Your task to perform on an android device: Clear the cart on walmart. Add "usb-c to usb-a" to the cart on walmart Image 0: 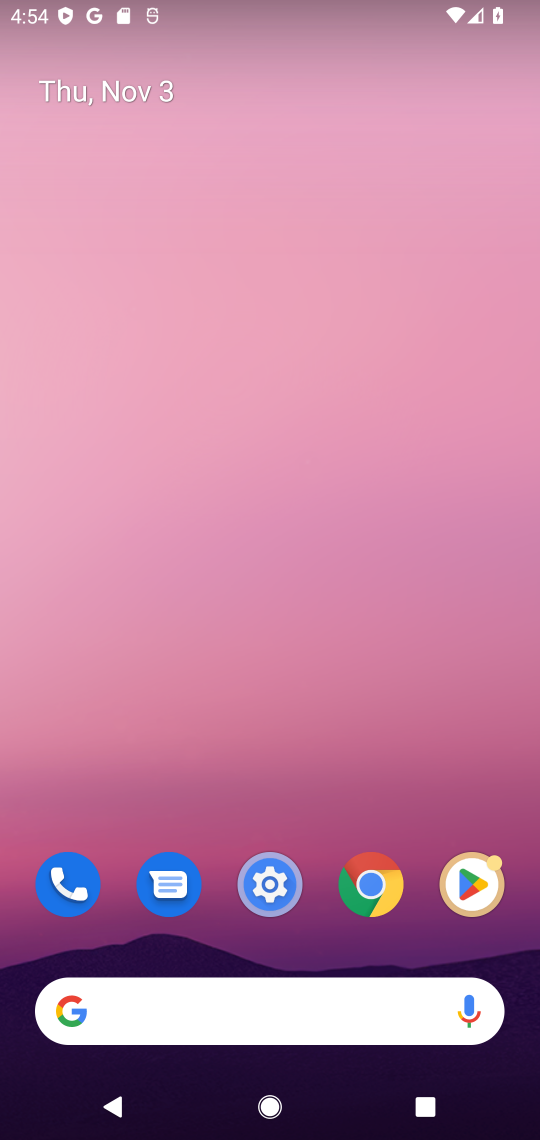
Step 0: press home button
Your task to perform on an android device: Clear the cart on walmart. Add "usb-c to usb-a" to the cart on walmart Image 1: 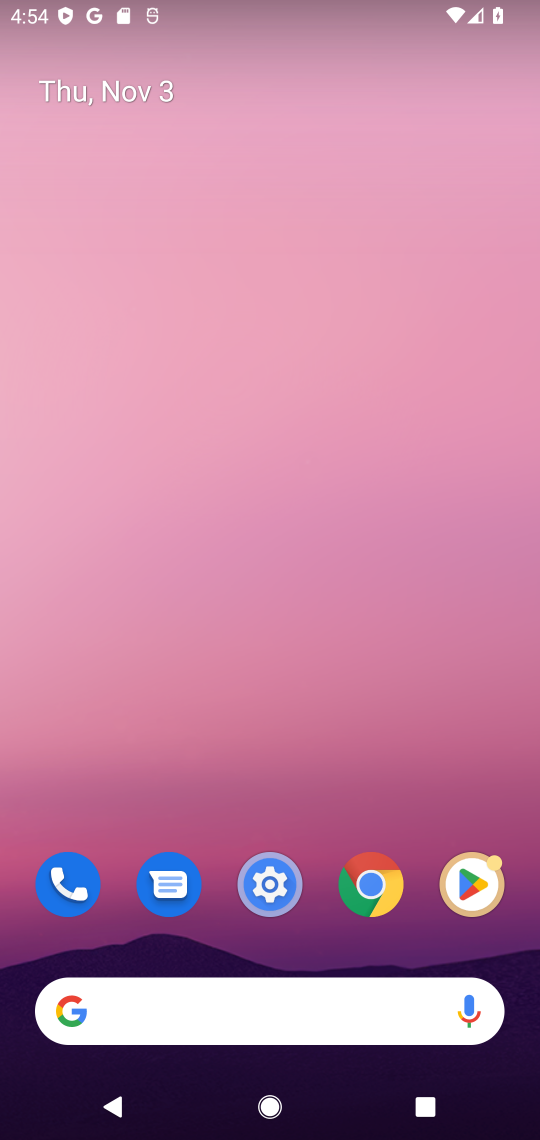
Step 1: click (140, 1019)
Your task to perform on an android device: Clear the cart on walmart. Add "usb-c to usb-a" to the cart on walmart Image 2: 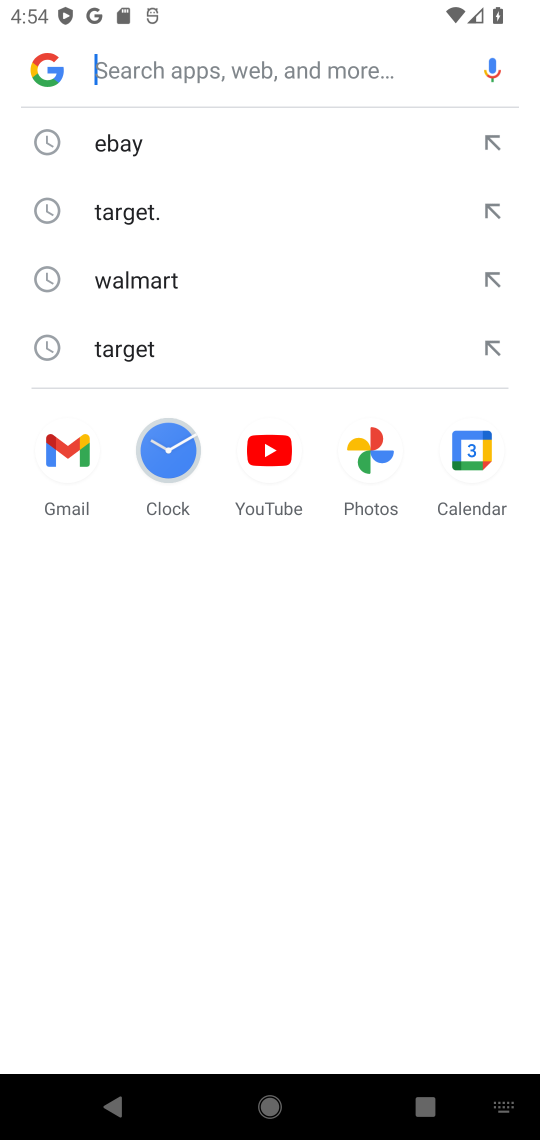
Step 2: type "walmart"
Your task to perform on an android device: Clear the cart on walmart. Add "usb-c to usb-a" to the cart on walmart Image 3: 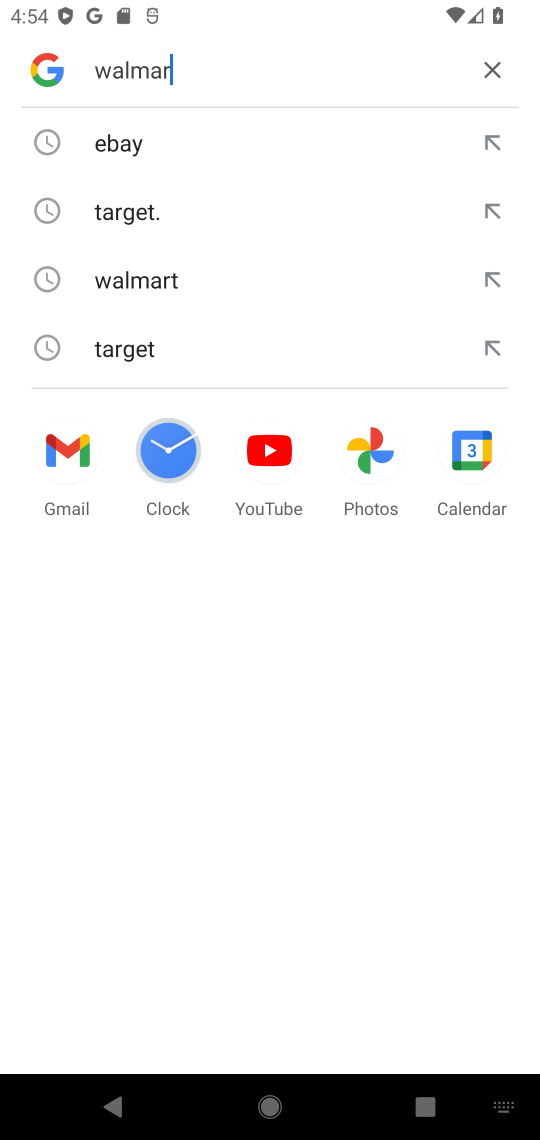
Step 3: press enter
Your task to perform on an android device: Clear the cart on walmart. Add "usb-c to usb-a" to the cart on walmart Image 4: 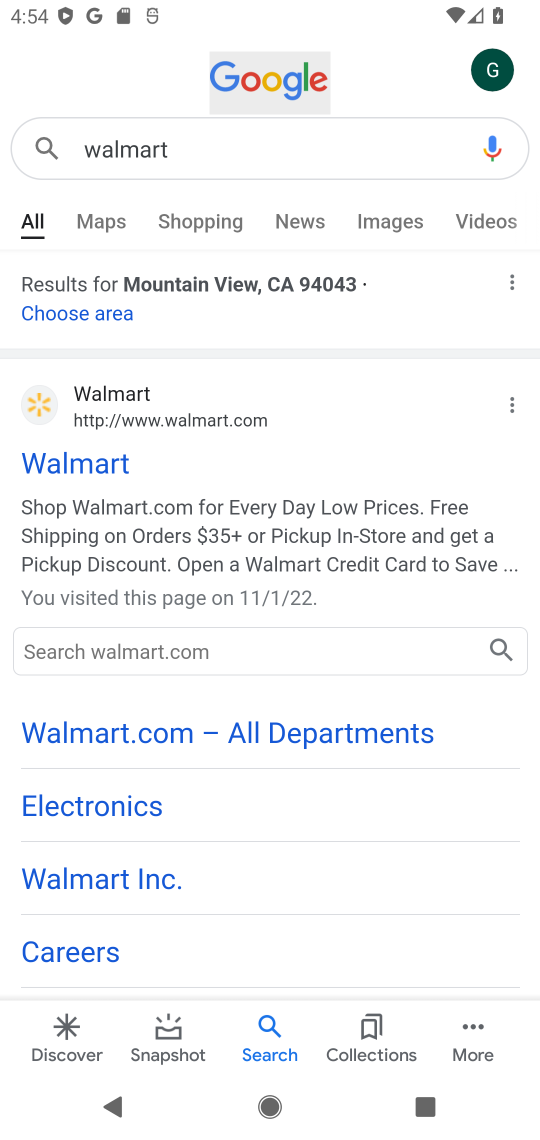
Step 4: click (94, 467)
Your task to perform on an android device: Clear the cart on walmart. Add "usb-c to usb-a" to the cart on walmart Image 5: 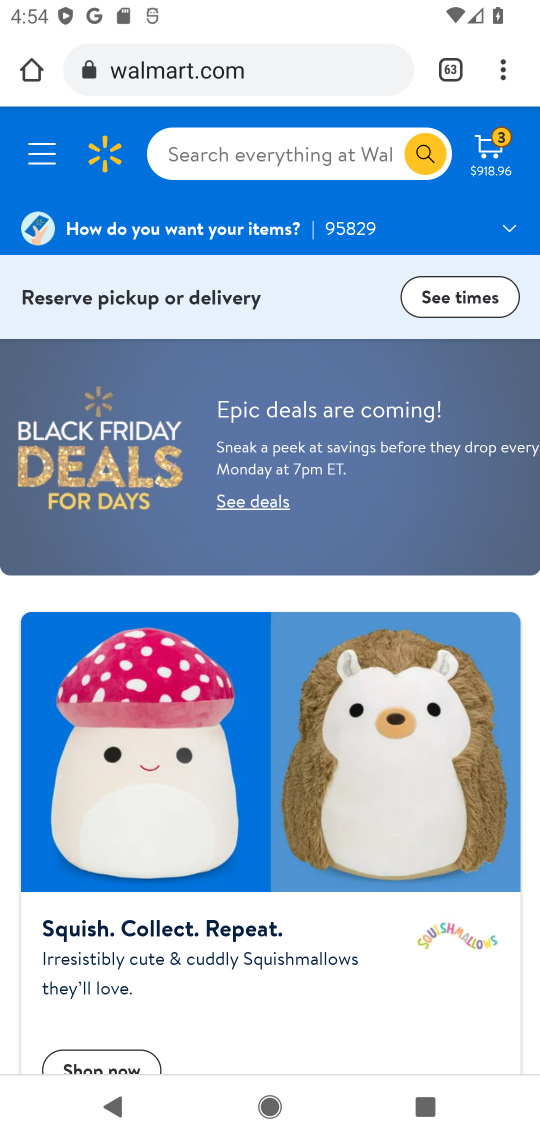
Step 5: click (495, 142)
Your task to perform on an android device: Clear the cart on walmart. Add "usb-c to usb-a" to the cart on walmart Image 6: 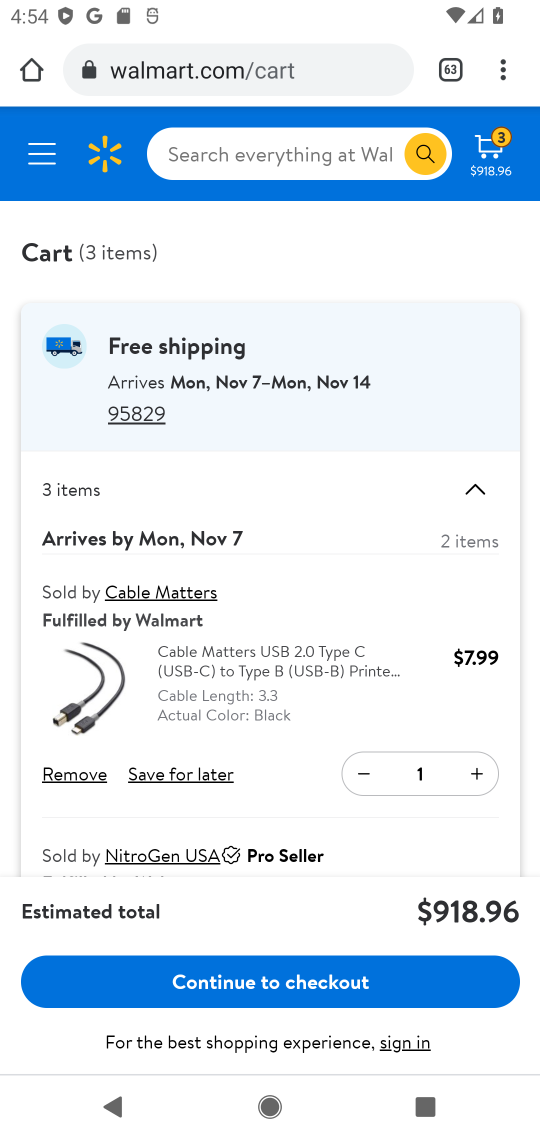
Step 6: click (68, 779)
Your task to perform on an android device: Clear the cart on walmart. Add "usb-c to usb-a" to the cart on walmart Image 7: 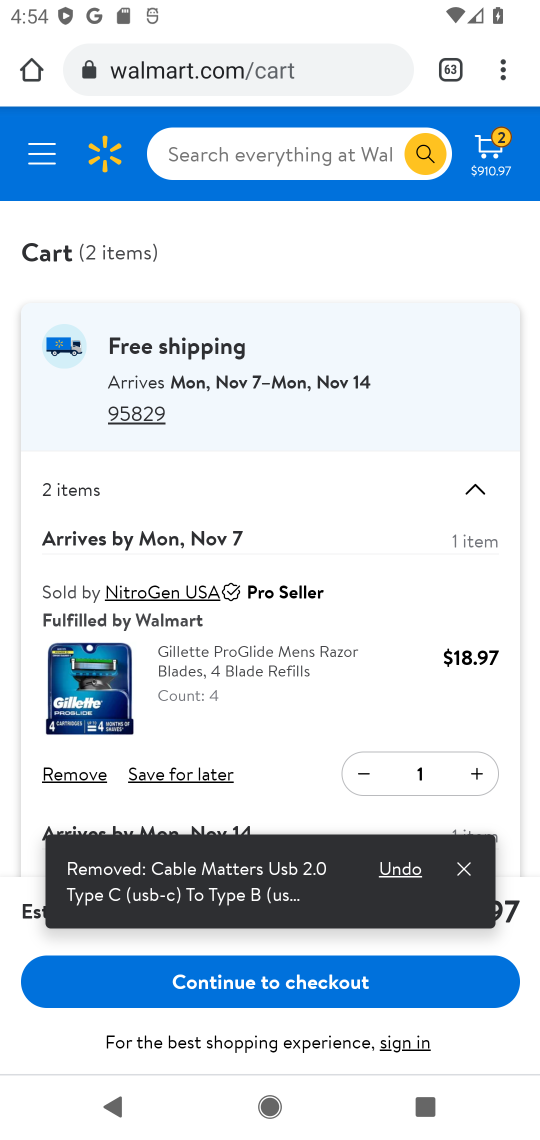
Step 7: click (68, 779)
Your task to perform on an android device: Clear the cart on walmart. Add "usb-c to usb-a" to the cart on walmart Image 8: 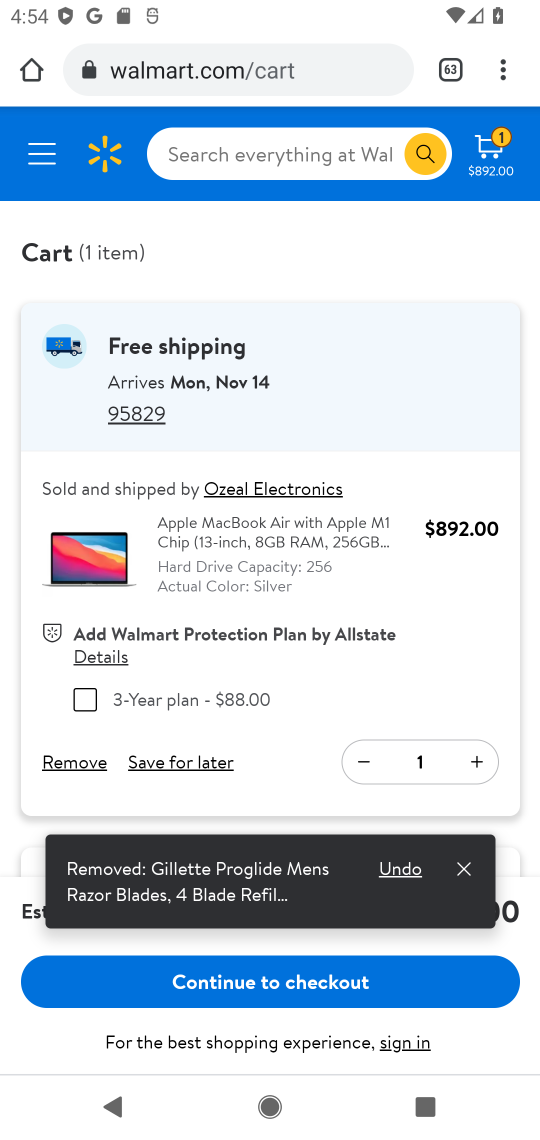
Step 8: click (72, 753)
Your task to perform on an android device: Clear the cart on walmart. Add "usb-c to usb-a" to the cart on walmart Image 9: 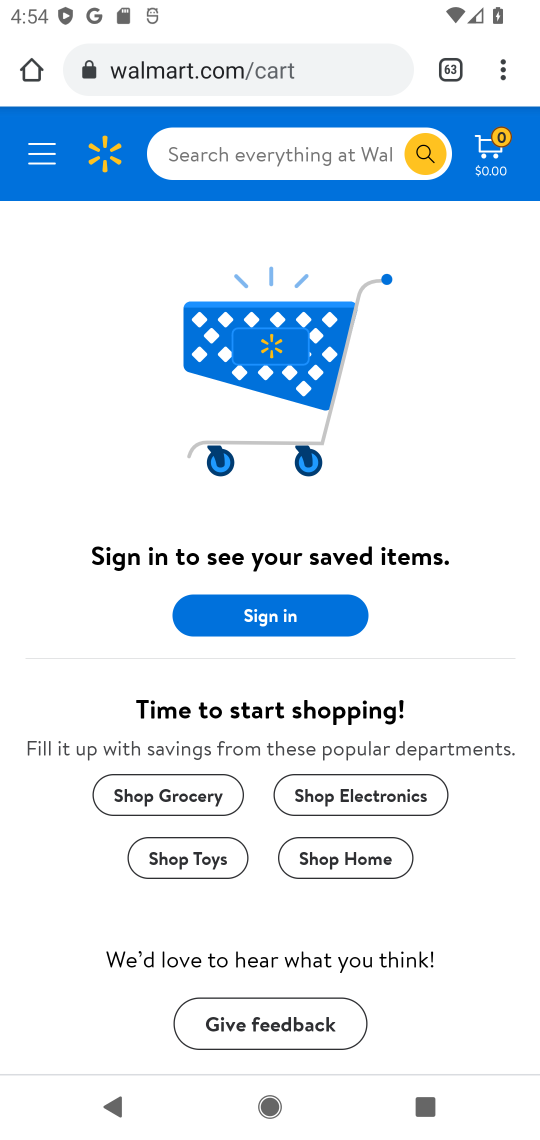
Step 9: click (195, 149)
Your task to perform on an android device: Clear the cart on walmart. Add "usb-c to usb-a" to the cart on walmart Image 10: 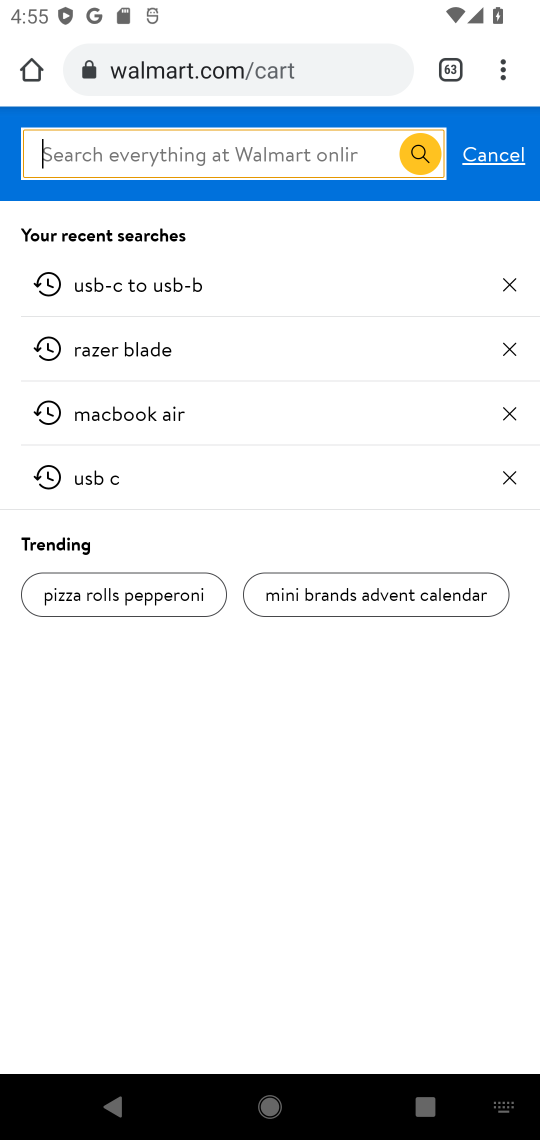
Step 10: type "usb-c to usb-a"
Your task to perform on an android device: Clear the cart on walmart. Add "usb-c to usb-a" to the cart on walmart Image 11: 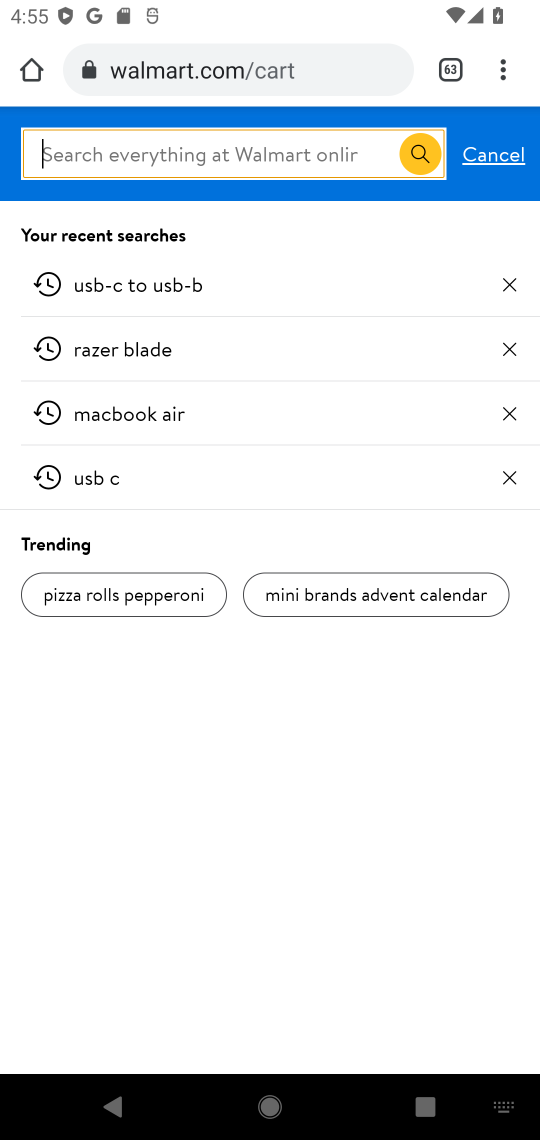
Step 11: press enter
Your task to perform on an android device: Clear the cart on walmart. Add "usb-c to usb-a" to the cart on walmart Image 12: 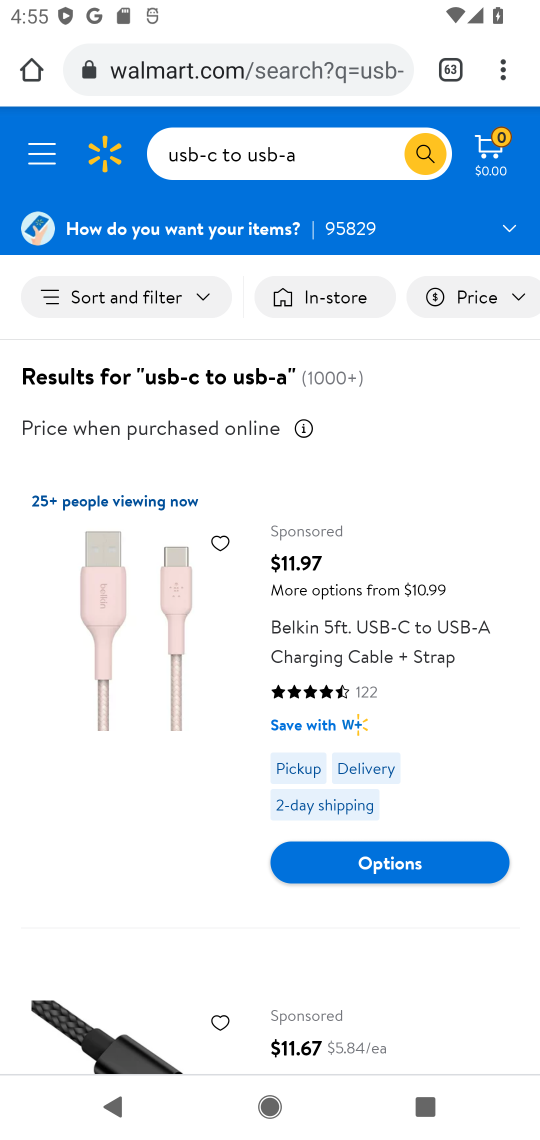
Step 12: click (353, 630)
Your task to perform on an android device: Clear the cart on walmart. Add "usb-c to usb-a" to the cart on walmart Image 13: 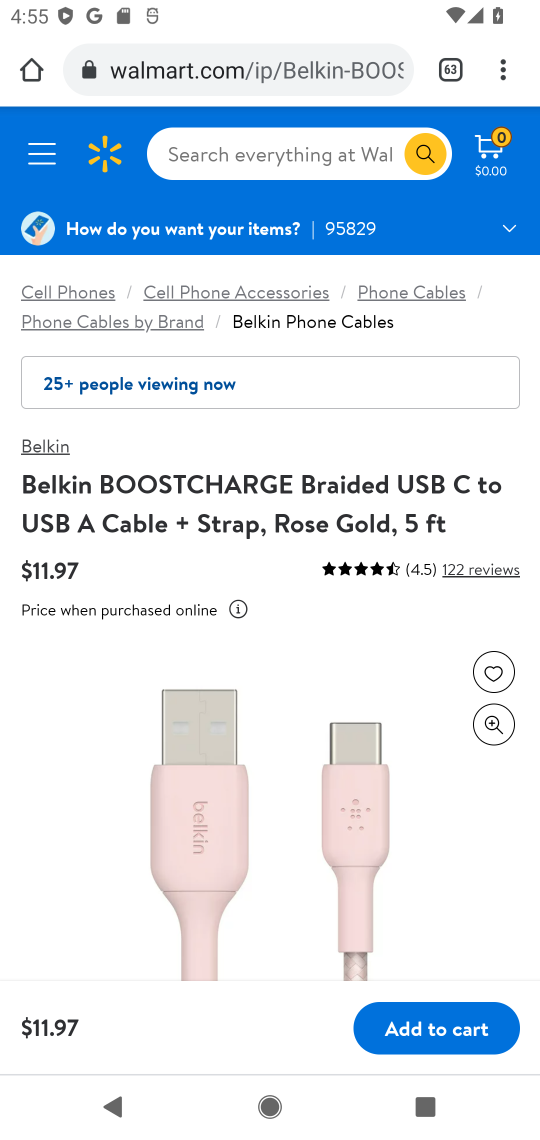
Step 13: click (448, 1045)
Your task to perform on an android device: Clear the cart on walmart. Add "usb-c to usb-a" to the cart on walmart Image 14: 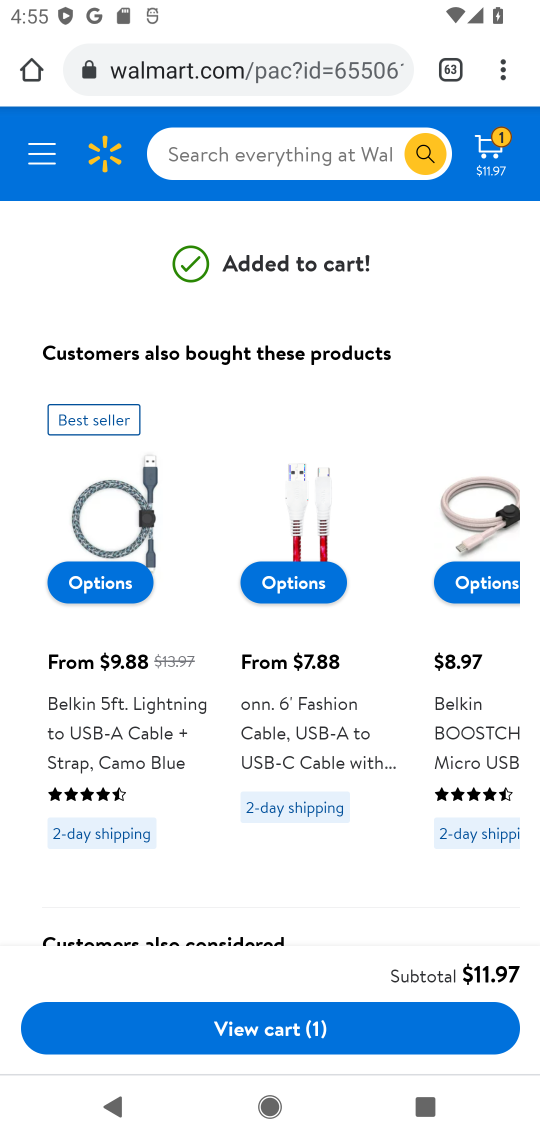
Step 14: click (301, 1033)
Your task to perform on an android device: Clear the cart on walmart. Add "usb-c to usb-a" to the cart on walmart Image 15: 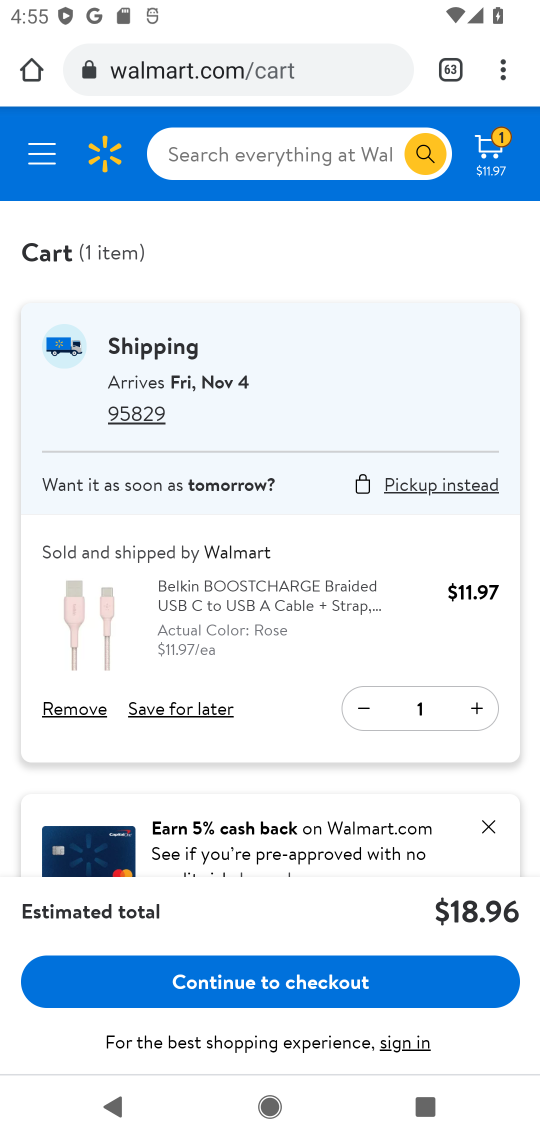
Step 15: task complete